Your task to perform on an android device: Is it going to rain tomorrow? Image 0: 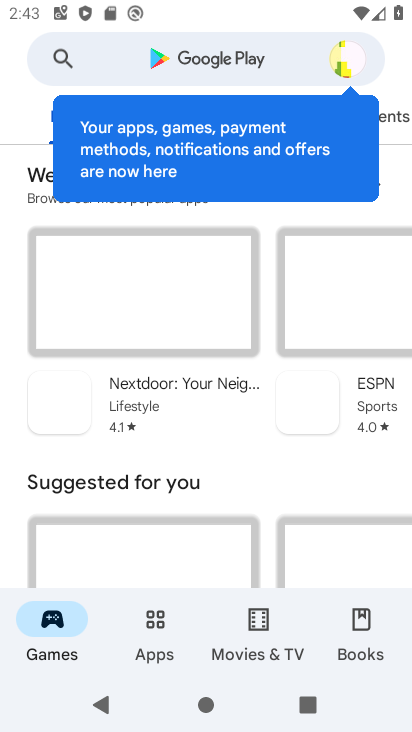
Step 0: press home button
Your task to perform on an android device: Is it going to rain tomorrow? Image 1: 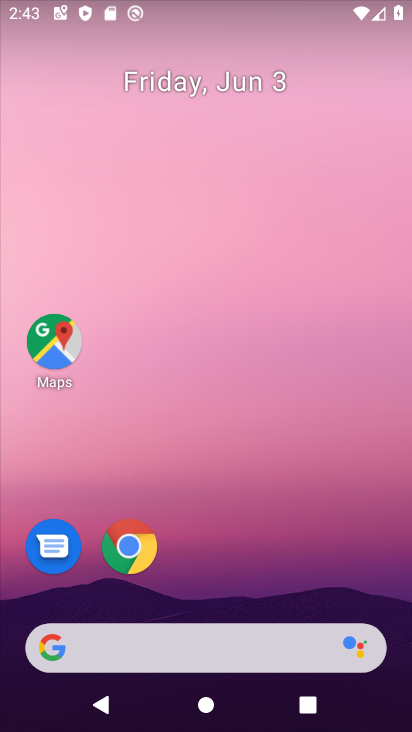
Step 1: click (145, 650)
Your task to perform on an android device: Is it going to rain tomorrow? Image 2: 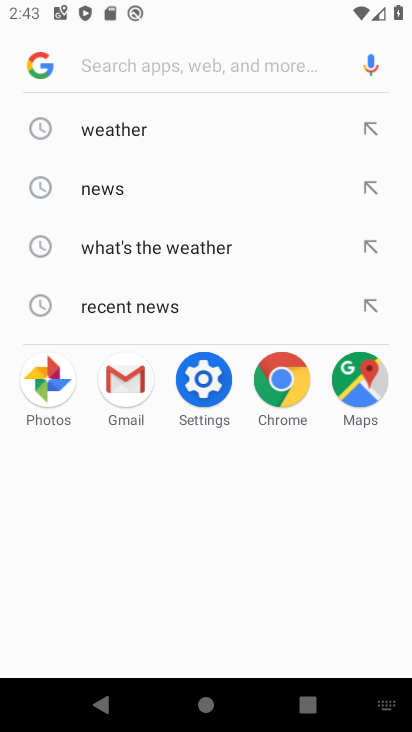
Step 2: type "is it going to rain tomorrow"
Your task to perform on an android device: Is it going to rain tomorrow? Image 3: 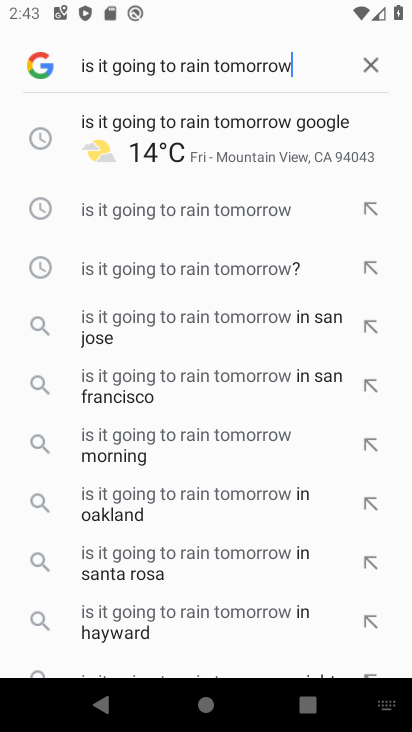
Step 3: click (92, 273)
Your task to perform on an android device: Is it going to rain tomorrow? Image 4: 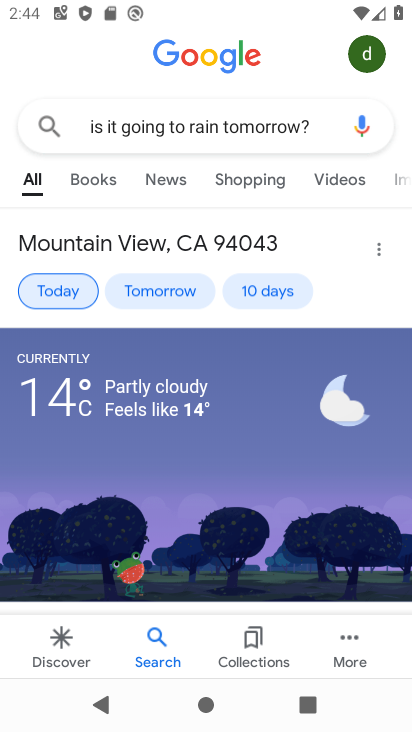
Step 4: click (140, 285)
Your task to perform on an android device: Is it going to rain tomorrow? Image 5: 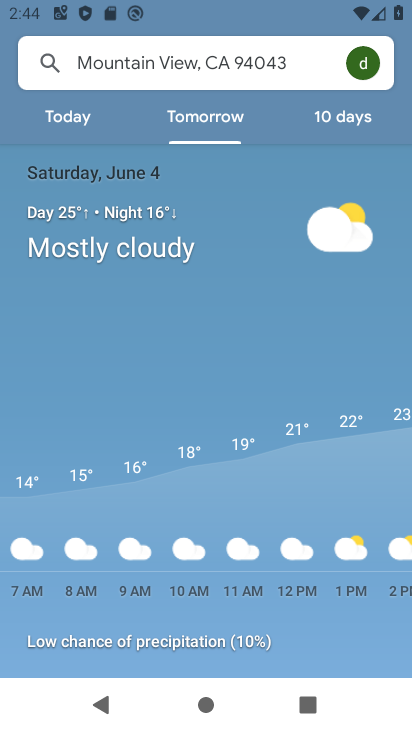
Step 5: task complete